Your task to perform on an android device: turn off picture-in-picture Image 0: 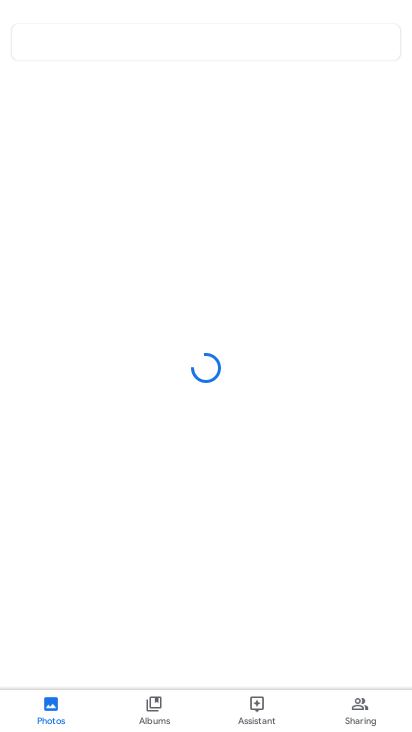
Step 0: press home button
Your task to perform on an android device: turn off picture-in-picture Image 1: 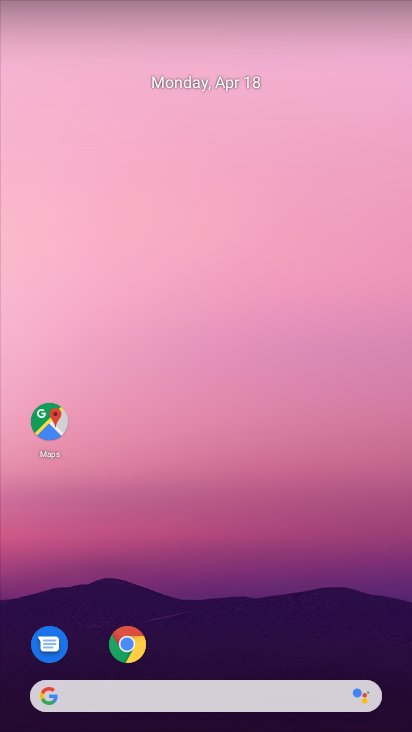
Step 1: click (125, 639)
Your task to perform on an android device: turn off picture-in-picture Image 2: 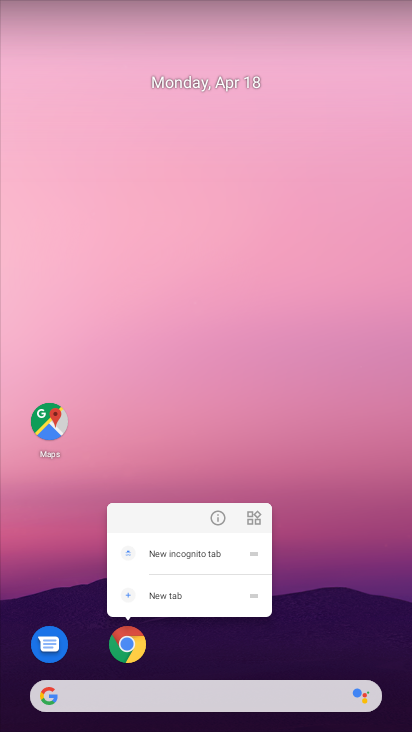
Step 2: click (215, 515)
Your task to perform on an android device: turn off picture-in-picture Image 3: 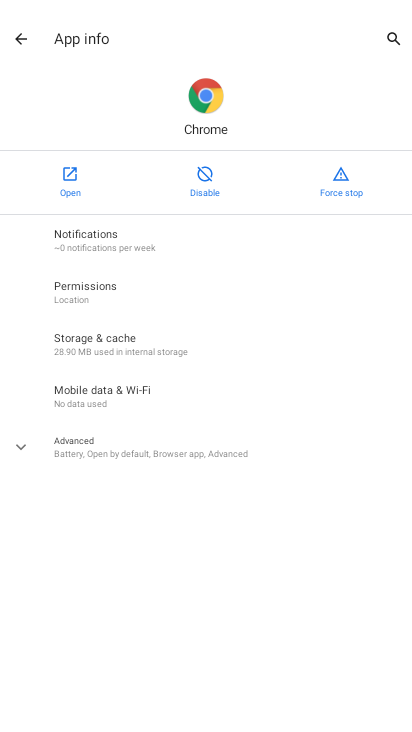
Step 3: click (24, 447)
Your task to perform on an android device: turn off picture-in-picture Image 4: 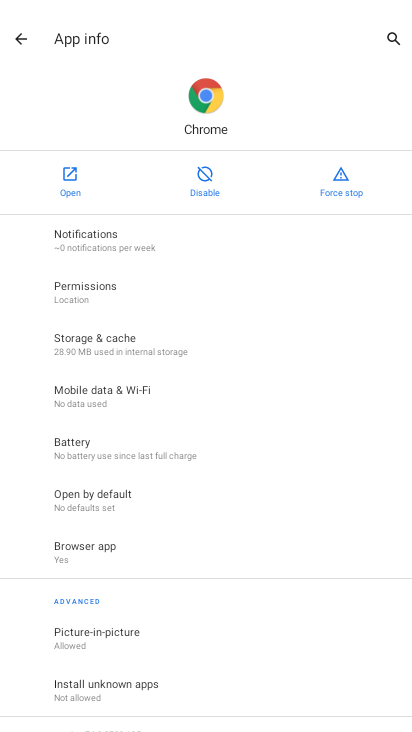
Step 4: click (98, 638)
Your task to perform on an android device: turn off picture-in-picture Image 5: 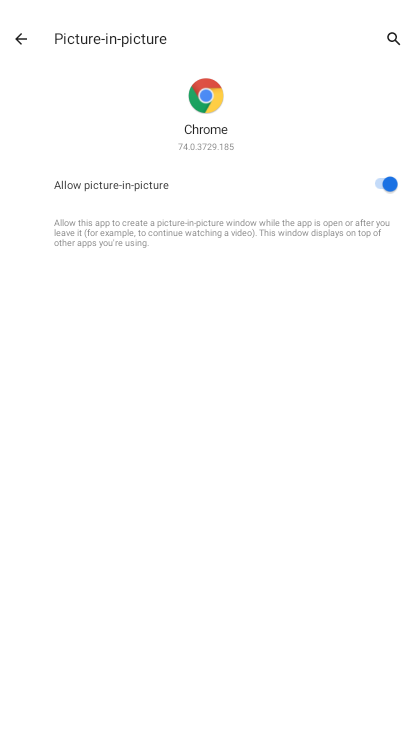
Step 5: click (380, 179)
Your task to perform on an android device: turn off picture-in-picture Image 6: 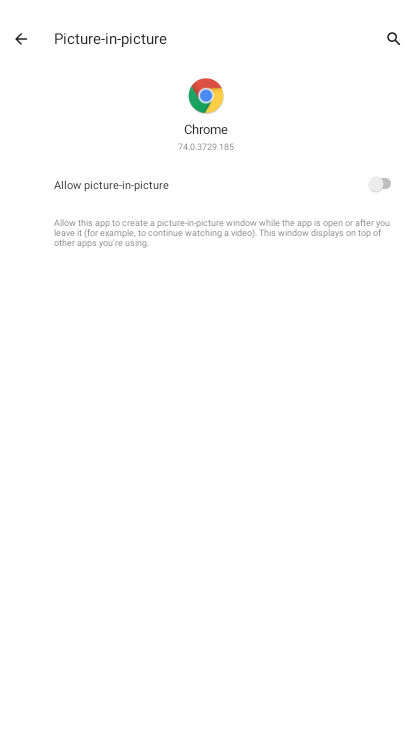
Step 6: task complete